Your task to perform on an android device: Open calendar and show me the second week of next month Image 0: 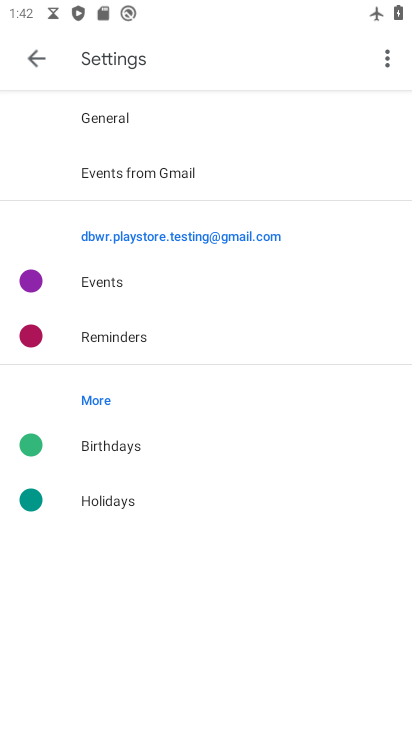
Step 0: press home button
Your task to perform on an android device: Open calendar and show me the second week of next month Image 1: 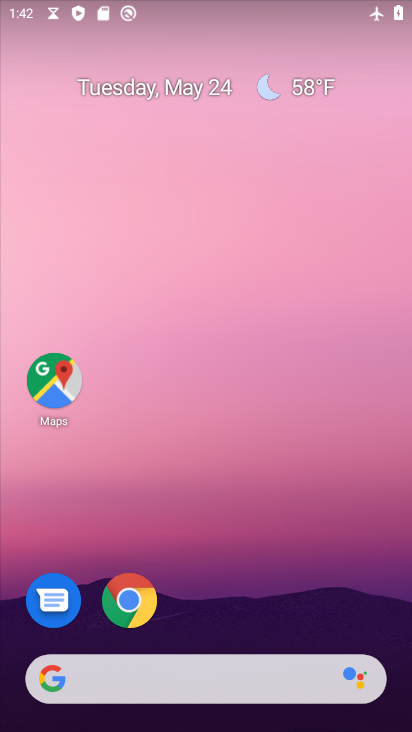
Step 1: drag from (263, 547) to (147, 42)
Your task to perform on an android device: Open calendar and show me the second week of next month Image 2: 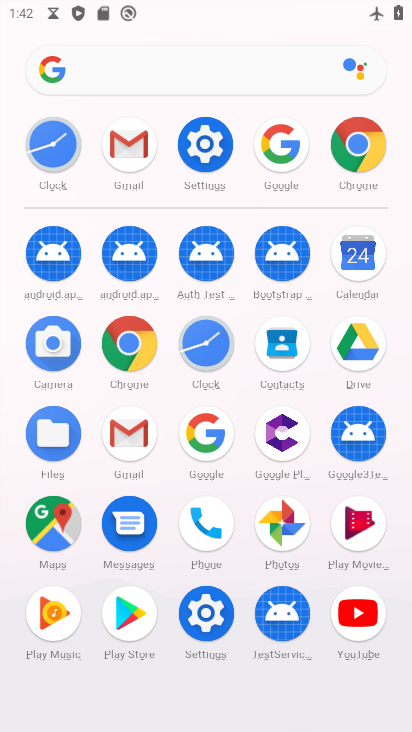
Step 2: click (353, 251)
Your task to perform on an android device: Open calendar and show me the second week of next month Image 3: 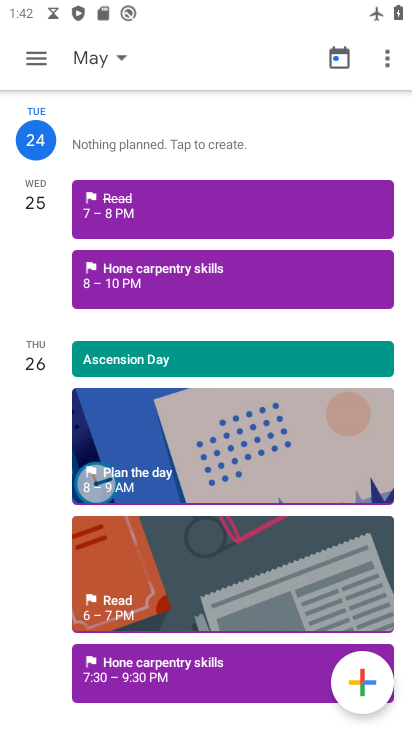
Step 3: click (113, 57)
Your task to perform on an android device: Open calendar and show me the second week of next month Image 4: 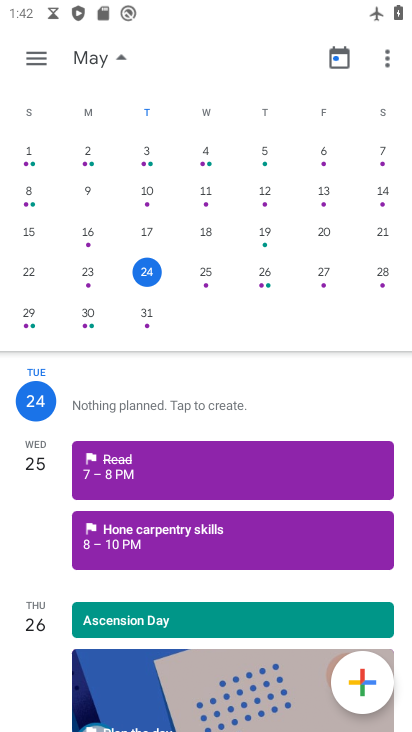
Step 4: drag from (348, 252) to (0, 228)
Your task to perform on an android device: Open calendar and show me the second week of next month Image 5: 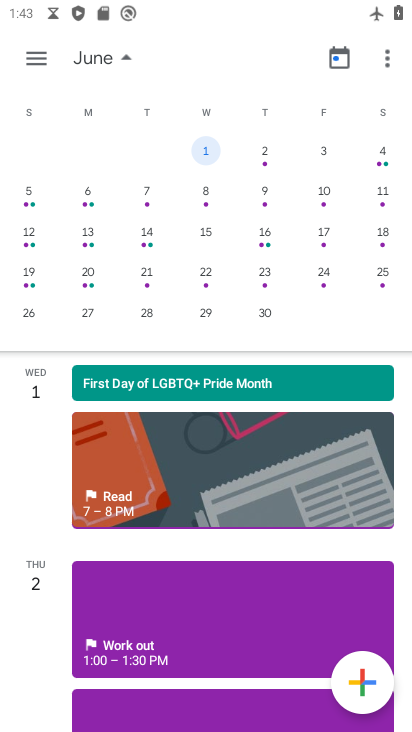
Step 5: click (32, 200)
Your task to perform on an android device: Open calendar and show me the second week of next month Image 6: 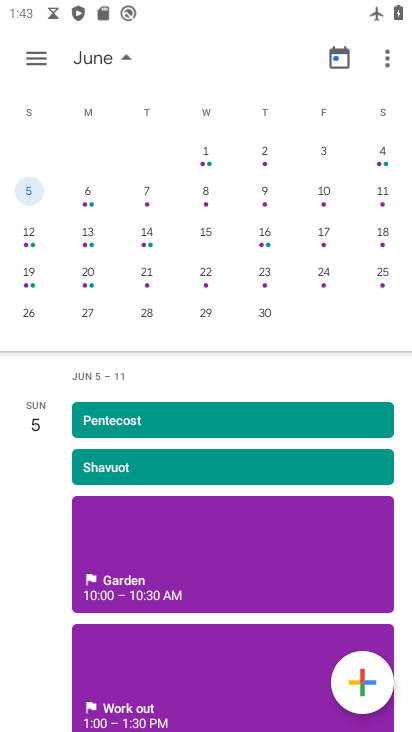
Step 6: task complete